Your task to perform on an android device: Open Google Image 0: 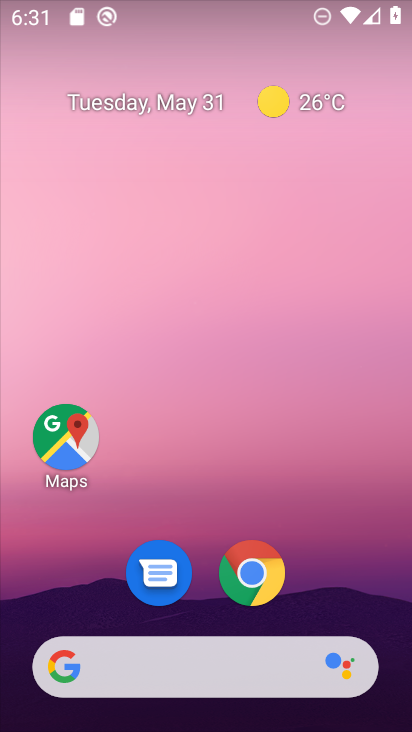
Step 0: drag from (386, 633) to (222, 3)
Your task to perform on an android device: Open Google Image 1: 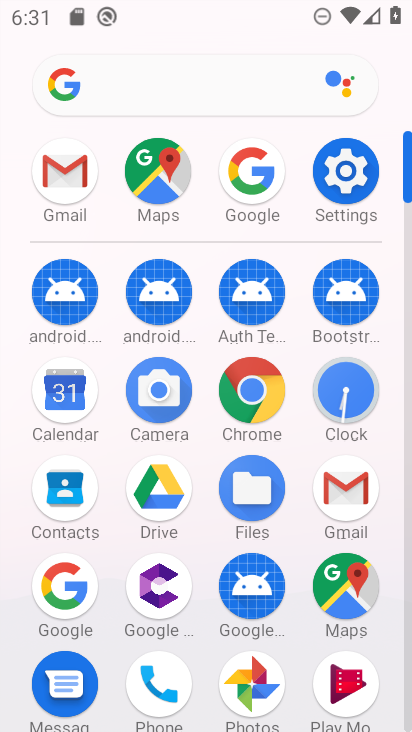
Step 1: click (94, 596)
Your task to perform on an android device: Open Google Image 2: 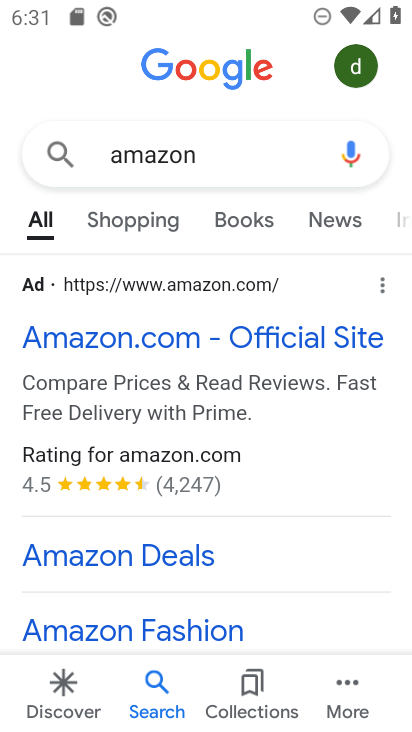
Step 2: task complete